Your task to perform on an android device: When is my next appointment? Image 0: 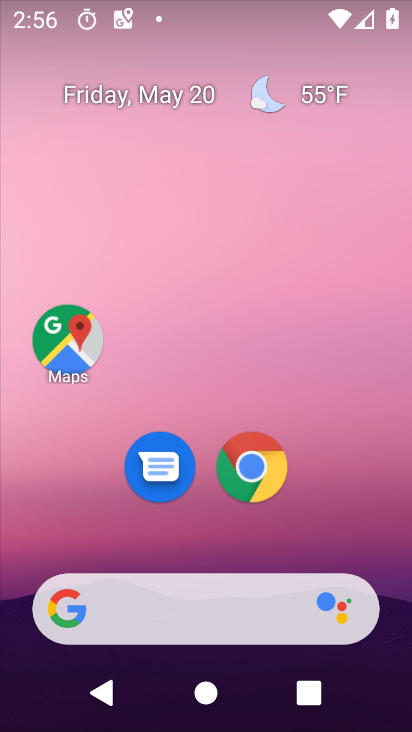
Step 0: drag from (171, 554) to (230, 1)
Your task to perform on an android device: When is my next appointment? Image 1: 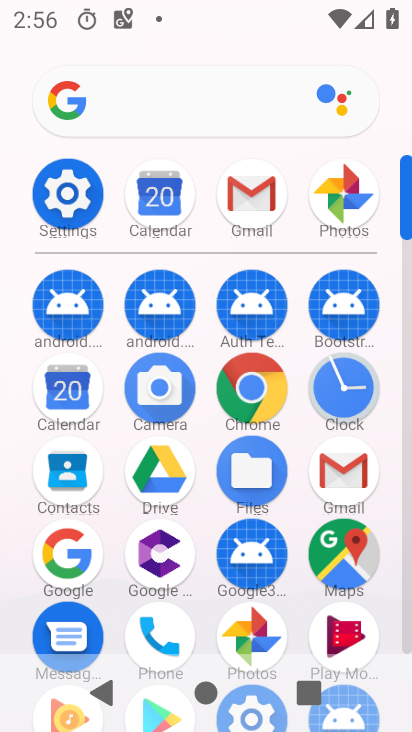
Step 1: click (70, 398)
Your task to perform on an android device: When is my next appointment? Image 2: 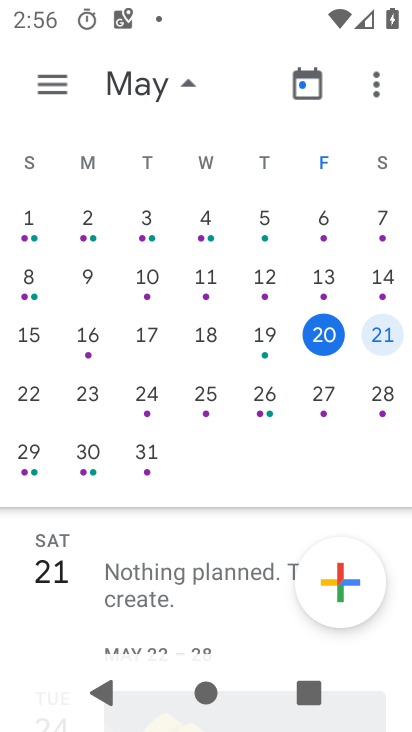
Step 2: click (326, 328)
Your task to perform on an android device: When is my next appointment? Image 3: 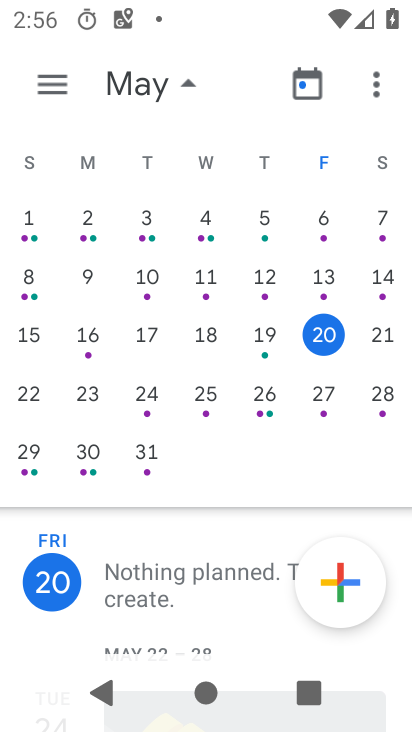
Step 3: task complete